Your task to perform on an android device: Open Chrome and go to settings Image 0: 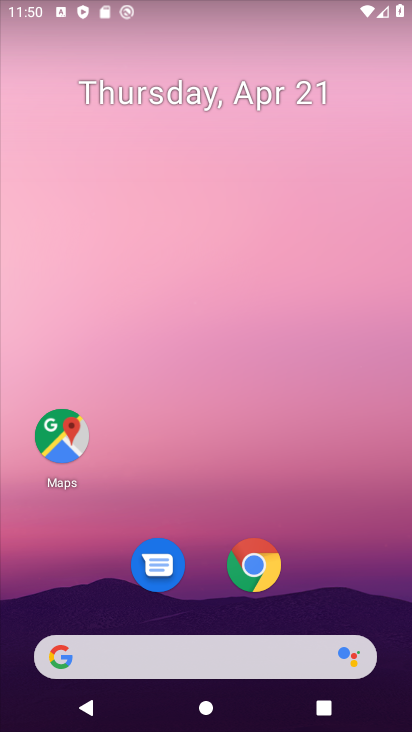
Step 0: press home button
Your task to perform on an android device: Open Chrome and go to settings Image 1: 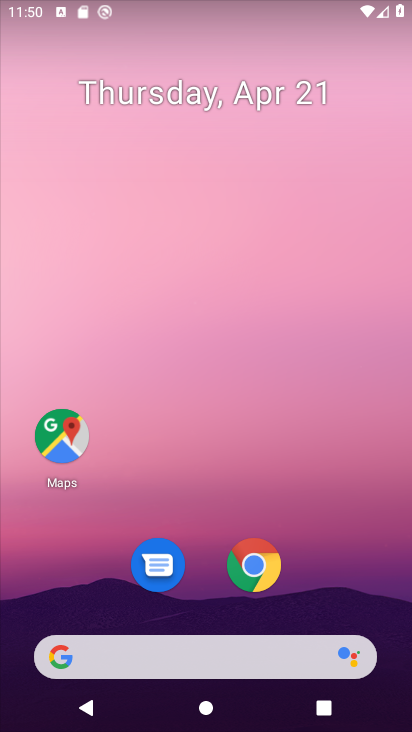
Step 1: press home button
Your task to perform on an android device: Open Chrome and go to settings Image 2: 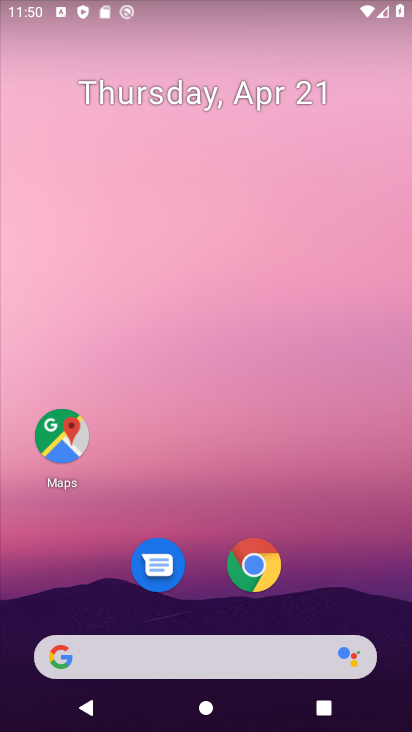
Step 2: click (262, 555)
Your task to perform on an android device: Open Chrome and go to settings Image 3: 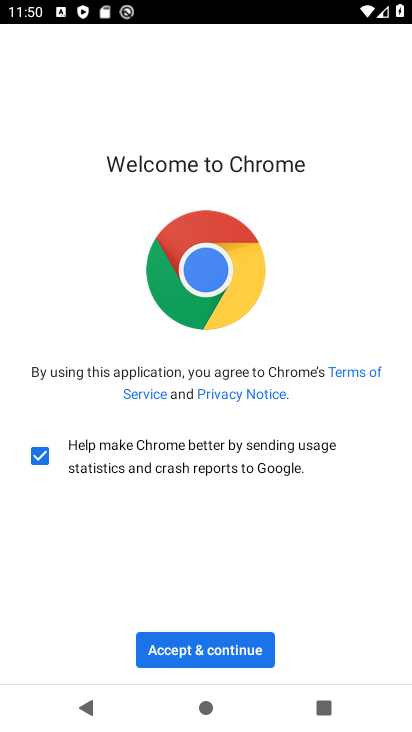
Step 3: click (219, 645)
Your task to perform on an android device: Open Chrome and go to settings Image 4: 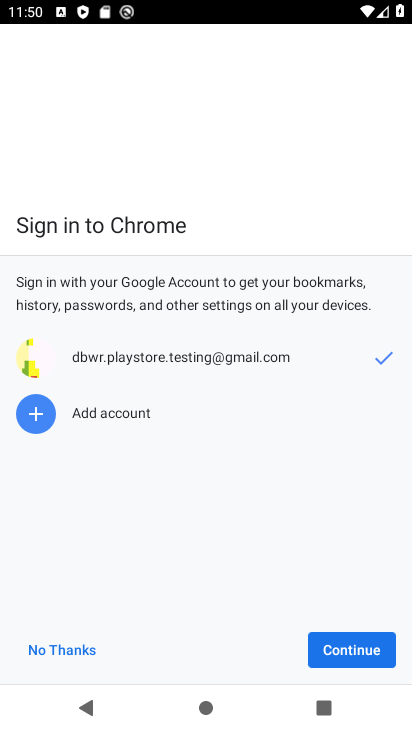
Step 4: click (367, 654)
Your task to perform on an android device: Open Chrome and go to settings Image 5: 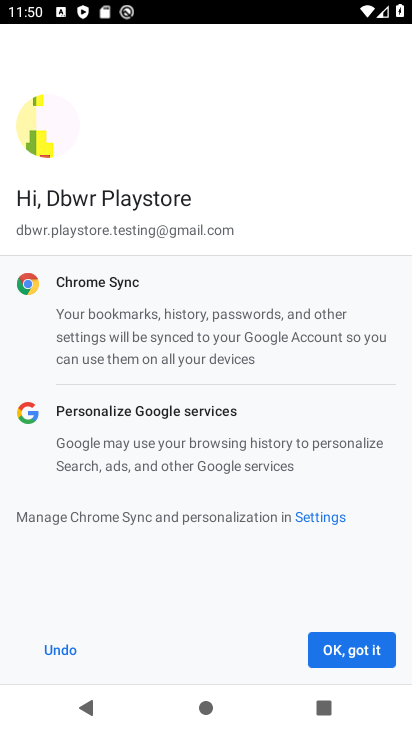
Step 5: click (336, 659)
Your task to perform on an android device: Open Chrome and go to settings Image 6: 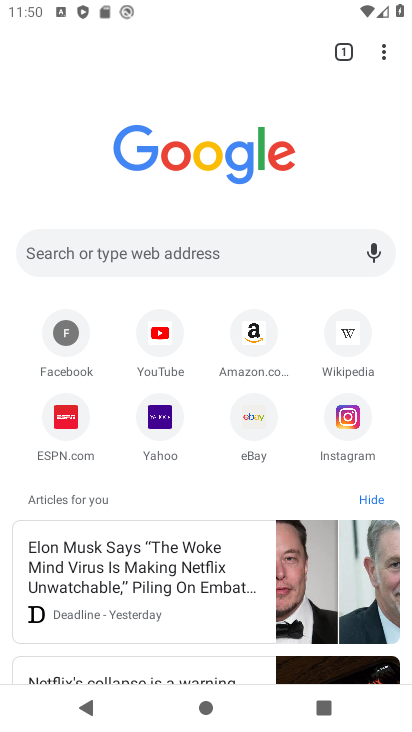
Step 6: click (385, 56)
Your task to perform on an android device: Open Chrome and go to settings Image 7: 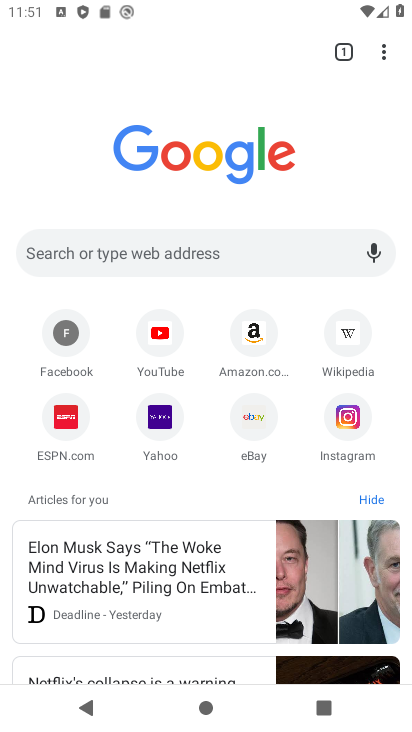
Step 7: click (383, 53)
Your task to perform on an android device: Open Chrome and go to settings Image 8: 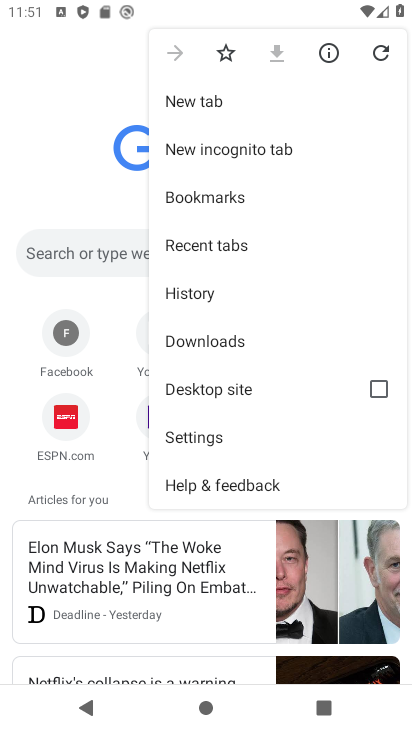
Step 8: click (184, 428)
Your task to perform on an android device: Open Chrome and go to settings Image 9: 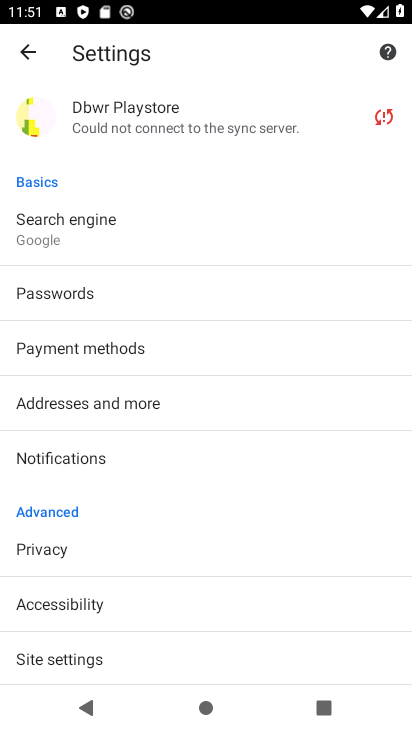
Step 9: task complete